Your task to perform on an android device: change the clock display to show seconds Image 0: 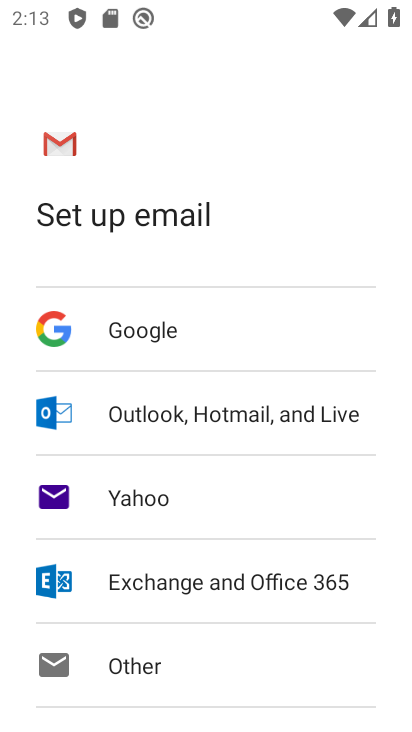
Step 0: press home button
Your task to perform on an android device: change the clock display to show seconds Image 1: 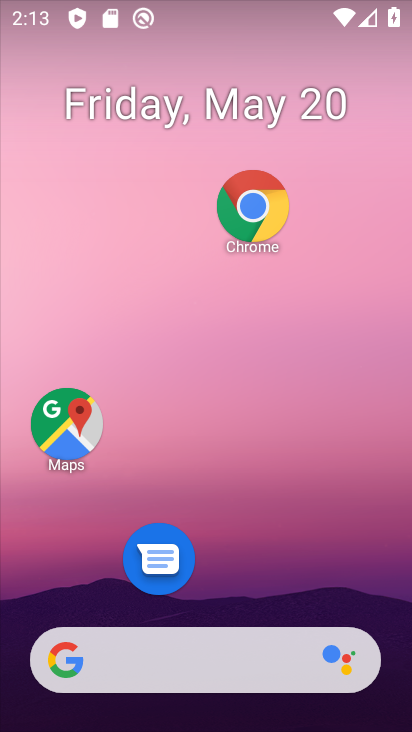
Step 1: drag from (208, 604) to (137, 82)
Your task to perform on an android device: change the clock display to show seconds Image 2: 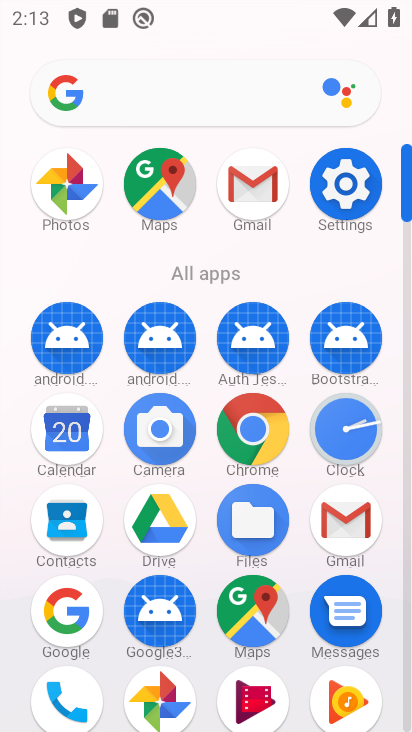
Step 2: click (335, 436)
Your task to perform on an android device: change the clock display to show seconds Image 3: 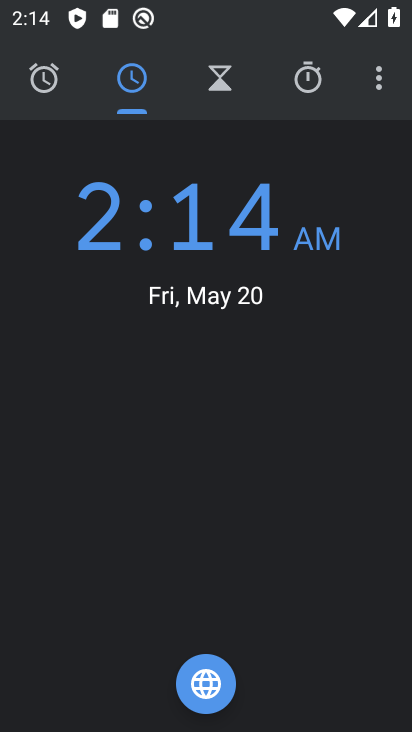
Step 3: click (383, 77)
Your task to perform on an android device: change the clock display to show seconds Image 4: 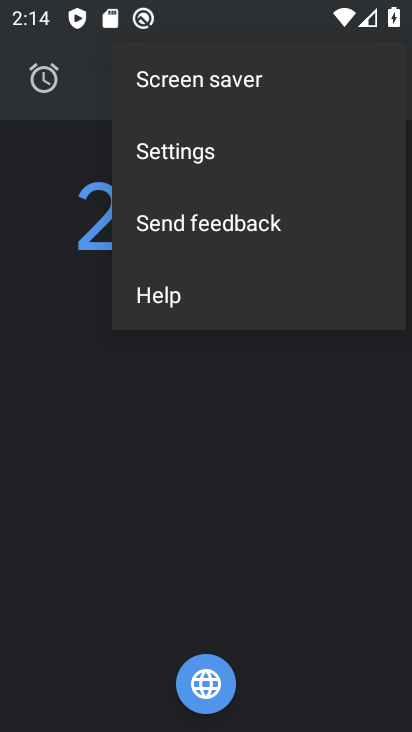
Step 4: click (176, 176)
Your task to perform on an android device: change the clock display to show seconds Image 5: 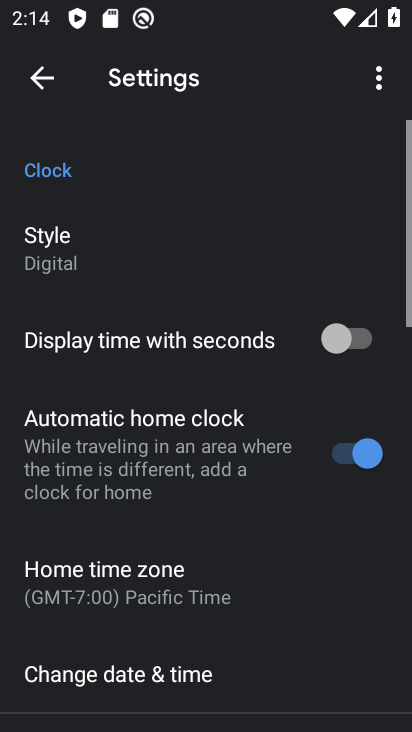
Step 5: click (333, 344)
Your task to perform on an android device: change the clock display to show seconds Image 6: 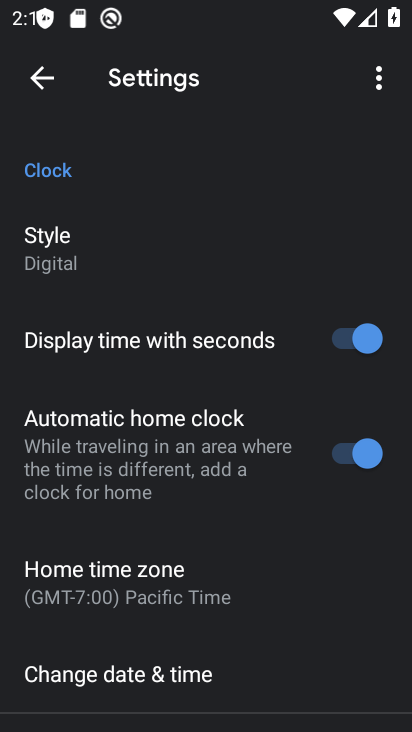
Step 6: task complete